Your task to perform on an android device: Go to calendar. Show me events next week Image 0: 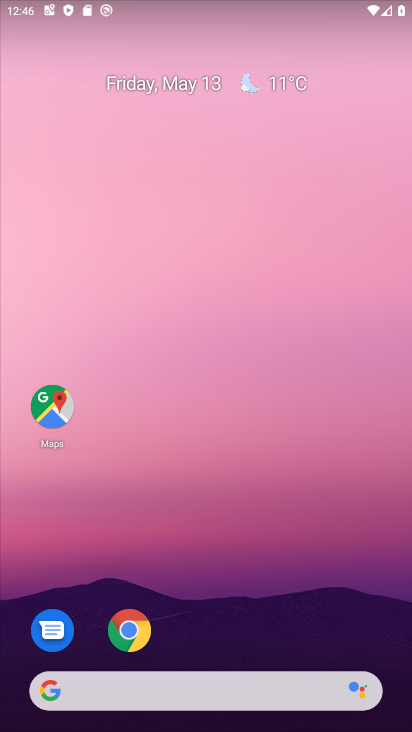
Step 0: drag from (319, 663) to (272, 5)
Your task to perform on an android device: Go to calendar. Show me events next week Image 1: 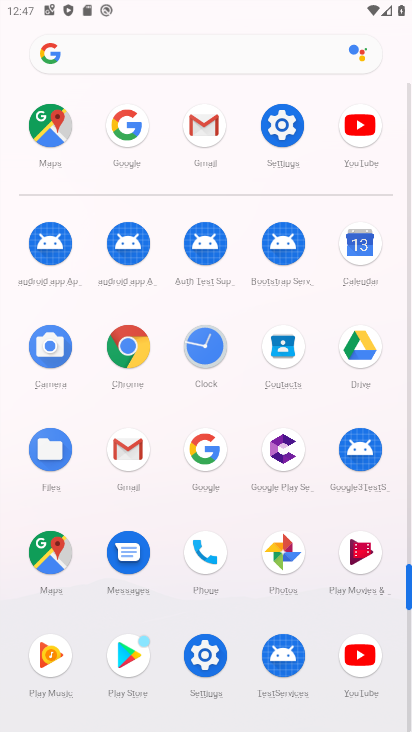
Step 1: click (352, 245)
Your task to perform on an android device: Go to calendar. Show me events next week Image 2: 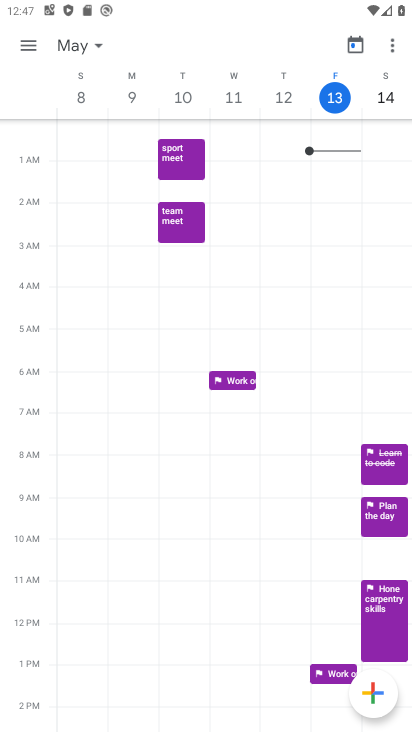
Step 2: task complete